Your task to perform on an android device: turn on the 12-hour format for clock Image 0: 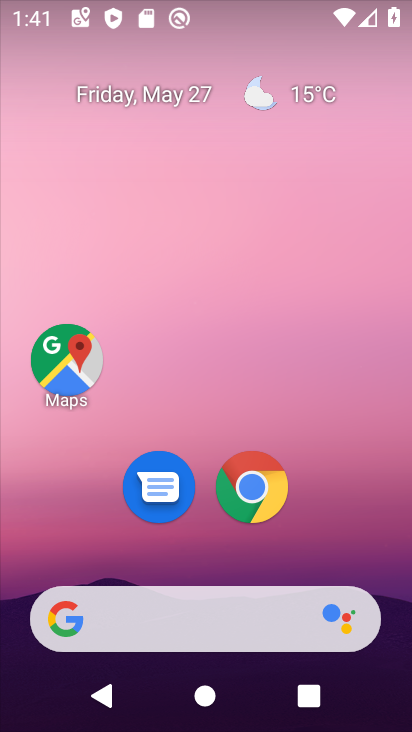
Step 0: drag from (300, 523) to (269, 227)
Your task to perform on an android device: turn on the 12-hour format for clock Image 1: 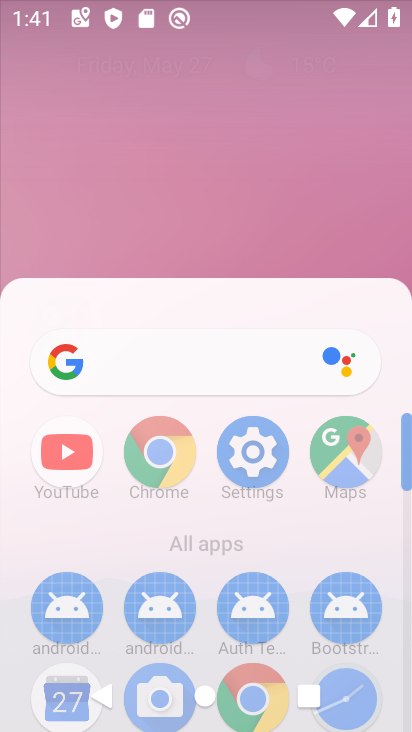
Step 1: click (270, 183)
Your task to perform on an android device: turn on the 12-hour format for clock Image 2: 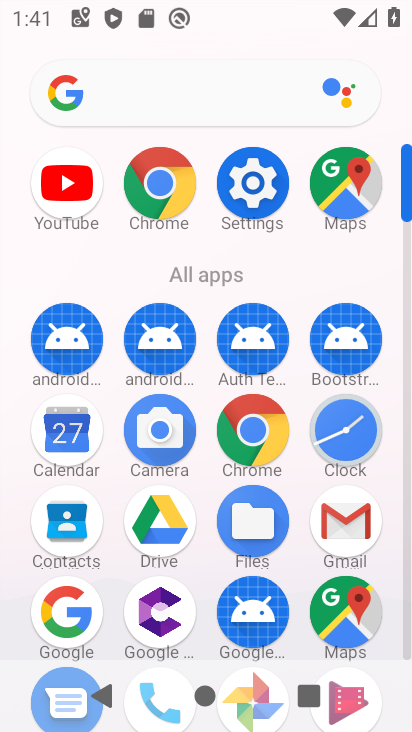
Step 2: click (336, 424)
Your task to perform on an android device: turn on the 12-hour format for clock Image 3: 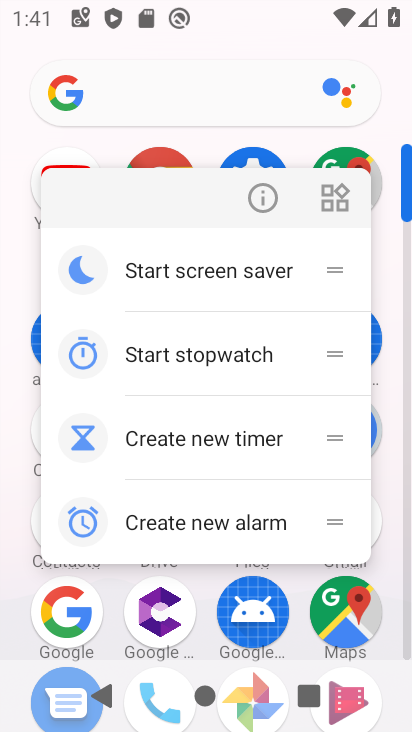
Step 3: click (376, 429)
Your task to perform on an android device: turn on the 12-hour format for clock Image 4: 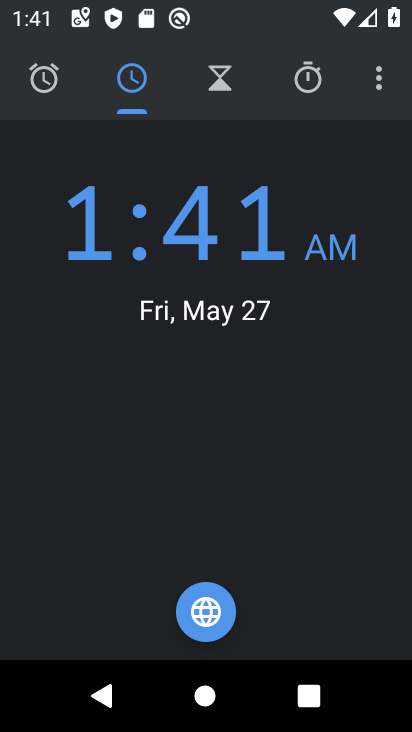
Step 4: click (376, 72)
Your task to perform on an android device: turn on the 12-hour format for clock Image 5: 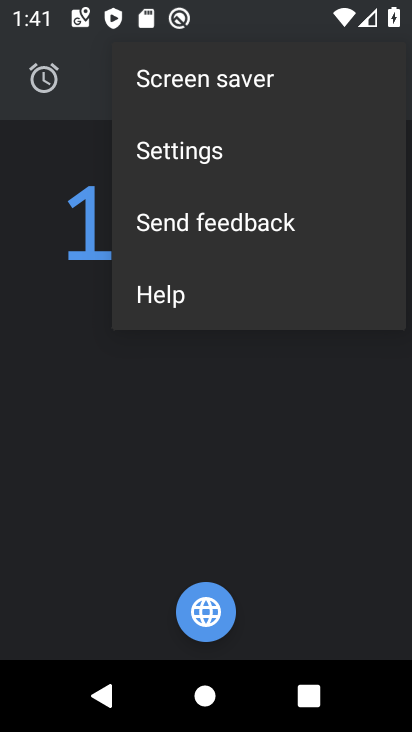
Step 5: click (179, 162)
Your task to perform on an android device: turn on the 12-hour format for clock Image 6: 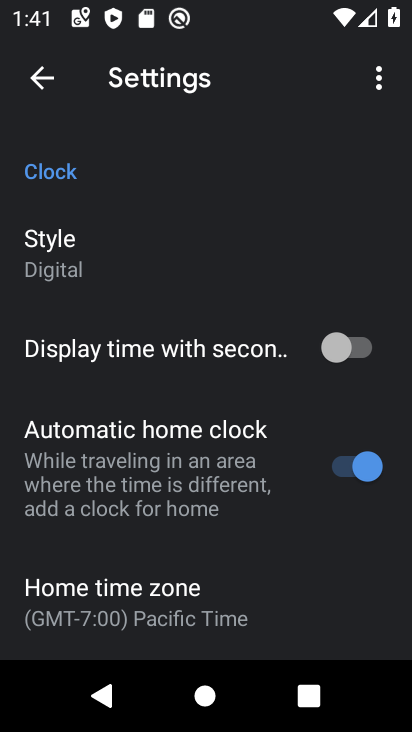
Step 6: drag from (103, 498) to (172, 166)
Your task to perform on an android device: turn on the 12-hour format for clock Image 7: 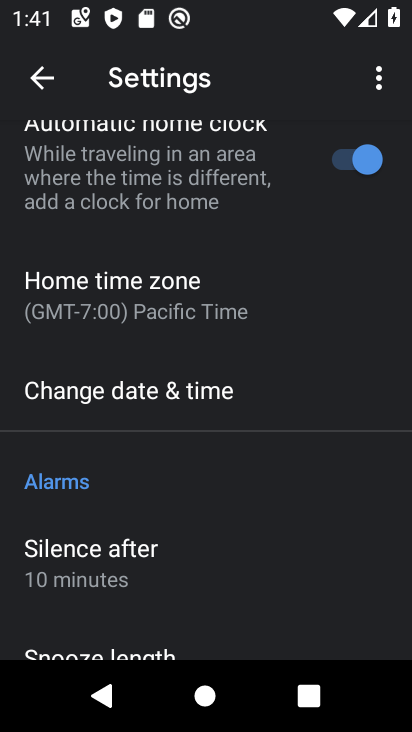
Step 7: click (137, 386)
Your task to perform on an android device: turn on the 12-hour format for clock Image 8: 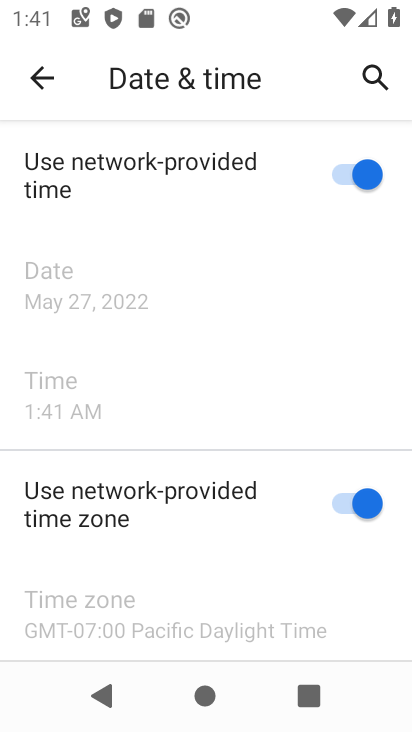
Step 8: task complete